Your task to perform on an android device: turn notification dots on Image 0: 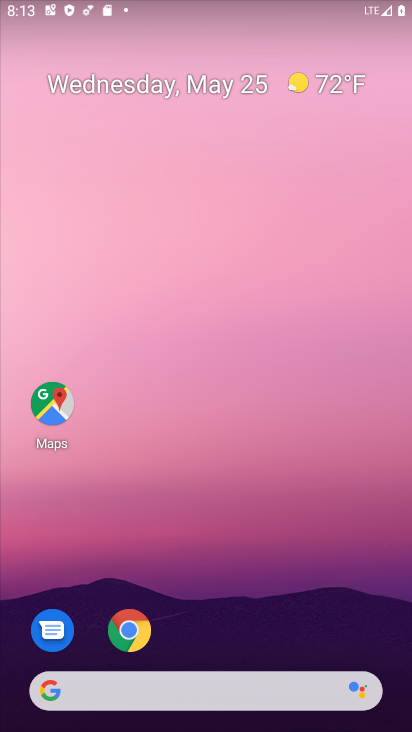
Step 0: drag from (207, 638) to (203, 229)
Your task to perform on an android device: turn notification dots on Image 1: 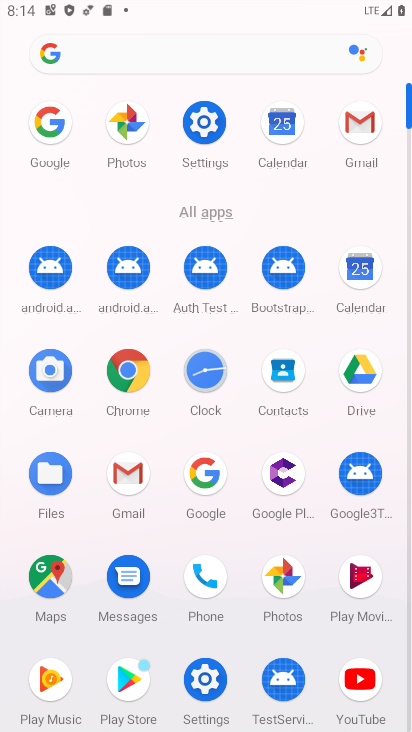
Step 1: click (213, 120)
Your task to perform on an android device: turn notification dots on Image 2: 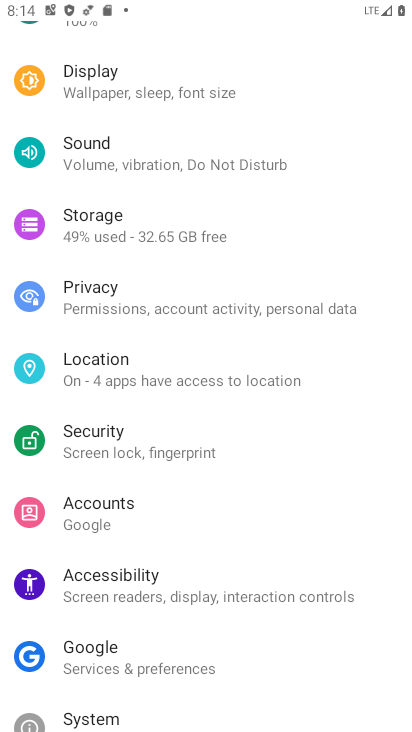
Step 2: drag from (199, 156) to (214, 406)
Your task to perform on an android device: turn notification dots on Image 3: 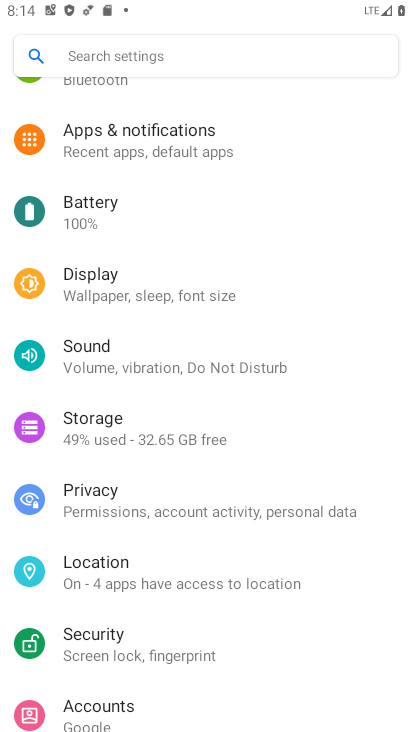
Step 3: click (185, 157)
Your task to perform on an android device: turn notification dots on Image 4: 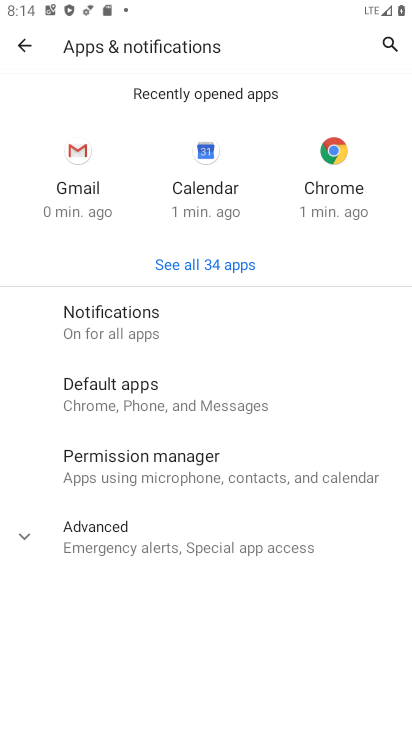
Step 4: click (165, 333)
Your task to perform on an android device: turn notification dots on Image 5: 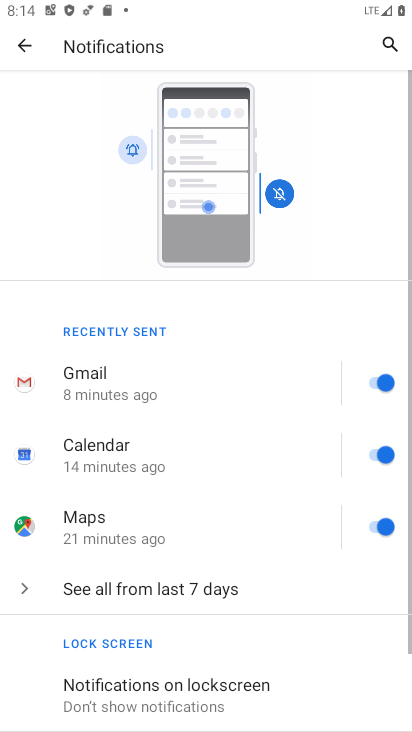
Step 5: drag from (202, 633) to (217, 260)
Your task to perform on an android device: turn notification dots on Image 6: 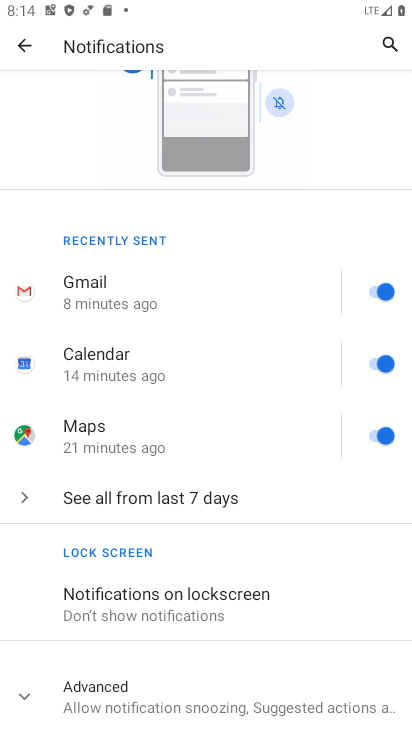
Step 6: click (251, 700)
Your task to perform on an android device: turn notification dots on Image 7: 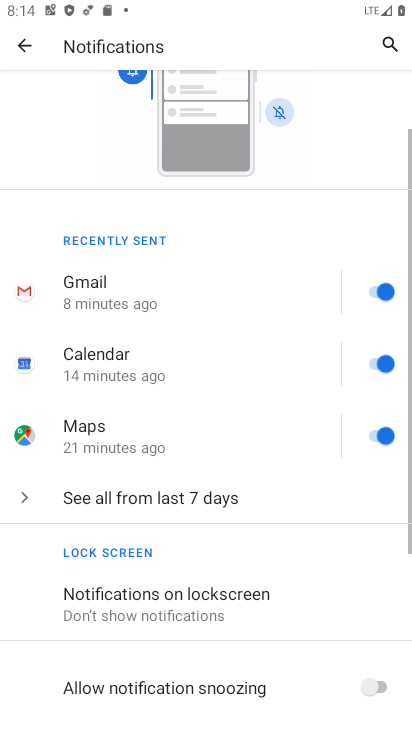
Step 7: task complete